Your task to perform on an android device: Open the map Image 0: 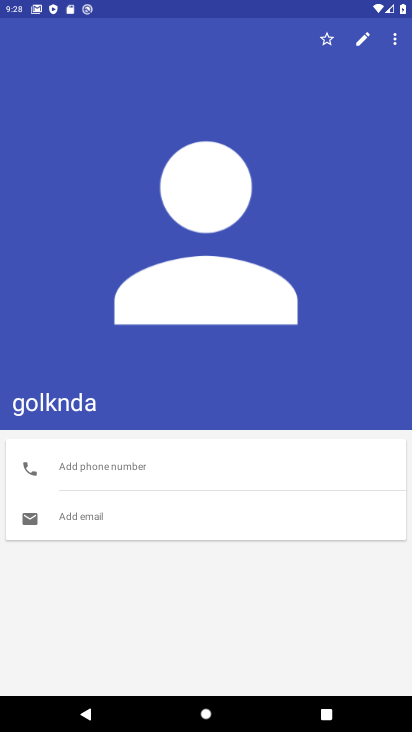
Step 0: press home button
Your task to perform on an android device: Open the map Image 1: 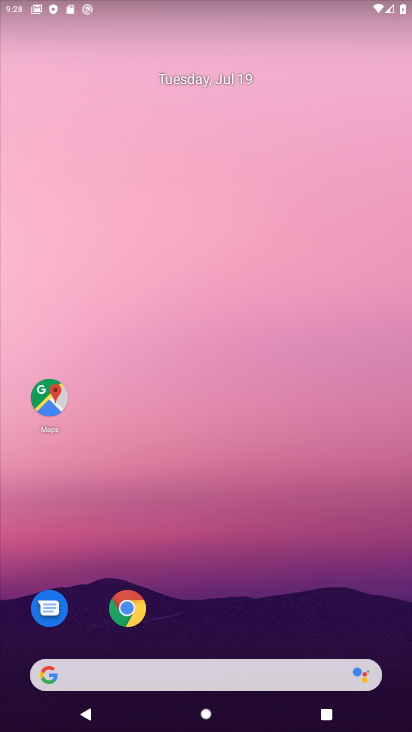
Step 1: drag from (277, 655) to (236, 87)
Your task to perform on an android device: Open the map Image 2: 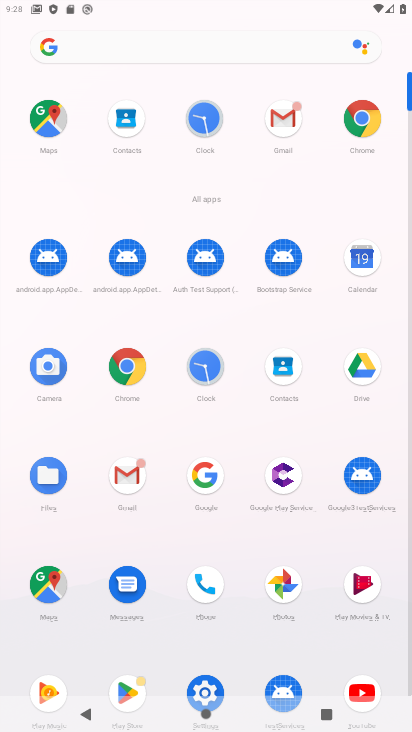
Step 2: click (56, 592)
Your task to perform on an android device: Open the map Image 3: 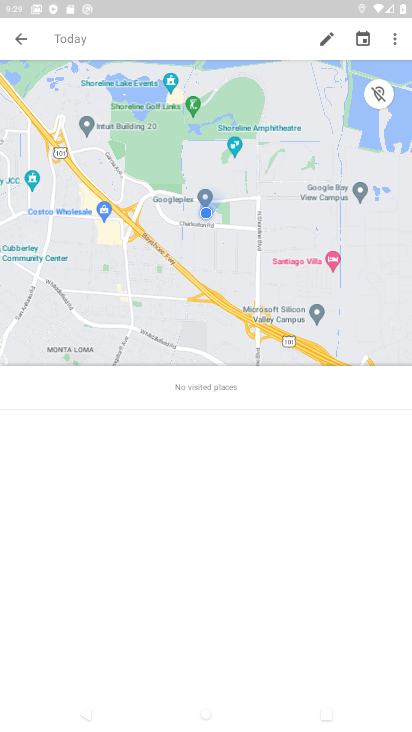
Step 3: task complete